Your task to perform on an android device: check data usage Image 0: 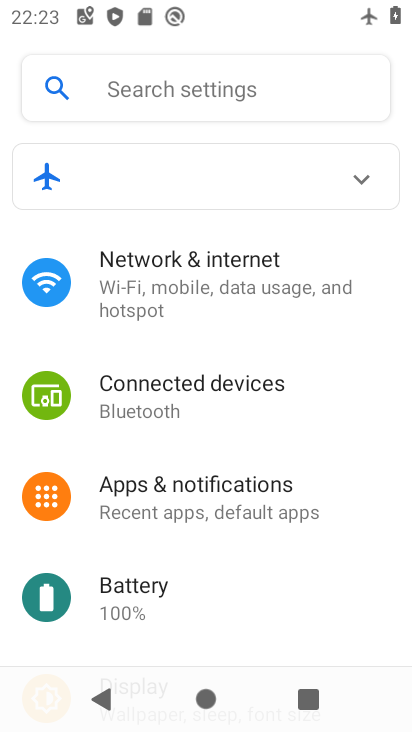
Step 0: click (246, 281)
Your task to perform on an android device: check data usage Image 1: 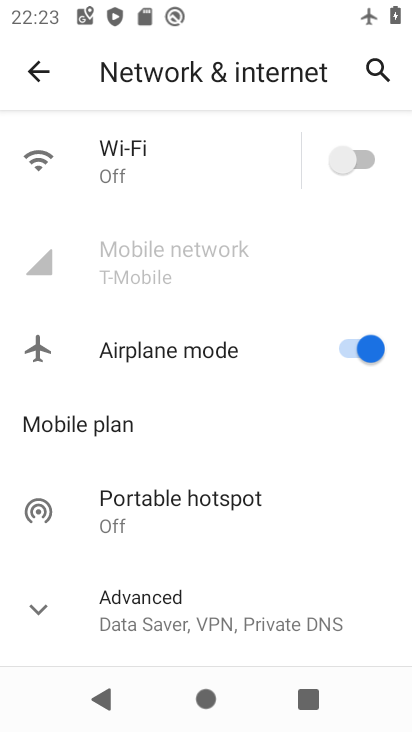
Step 1: click (366, 155)
Your task to perform on an android device: check data usage Image 2: 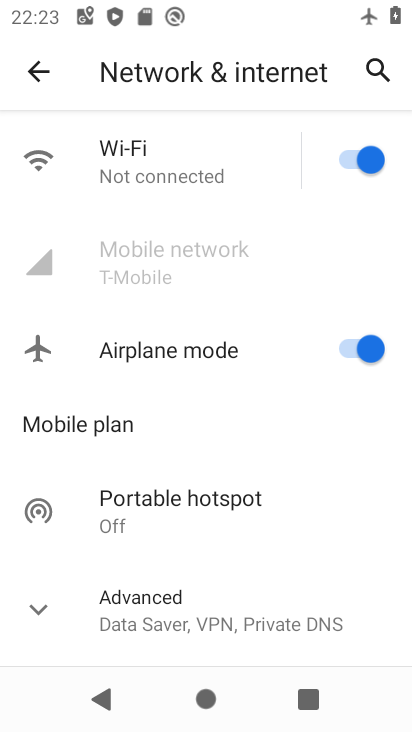
Step 2: click (352, 340)
Your task to perform on an android device: check data usage Image 3: 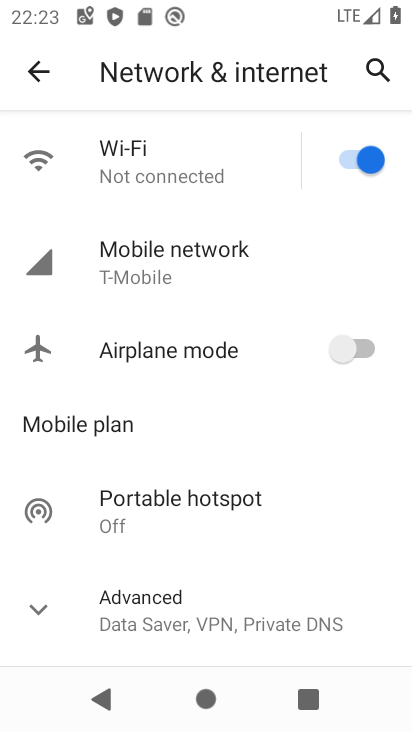
Step 3: click (198, 251)
Your task to perform on an android device: check data usage Image 4: 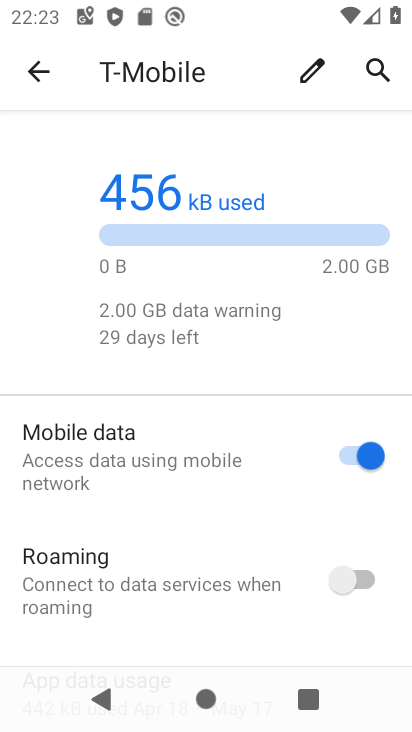
Step 4: task complete